Your task to perform on an android device: find photos in the google photos app Image 0: 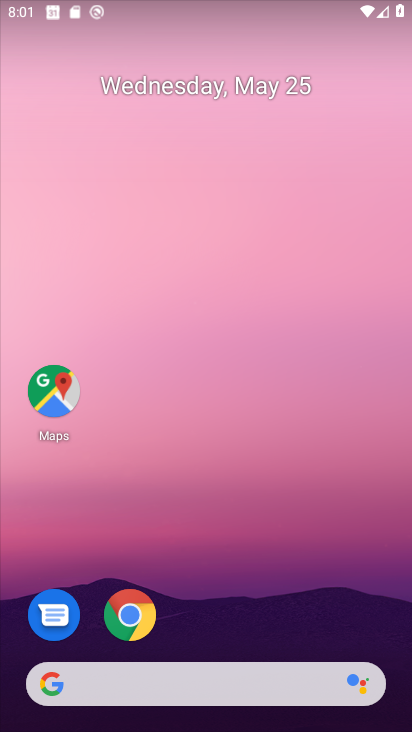
Step 0: drag from (286, 566) to (188, 38)
Your task to perform on an android device: find photos in the google photos app Image 1: 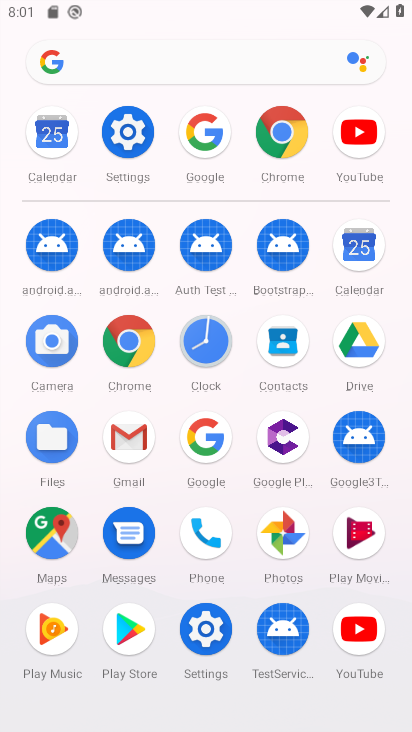
Step 1: click (283, 530)
Your task to perform on an android device: find photos in the google photos app Image 2: 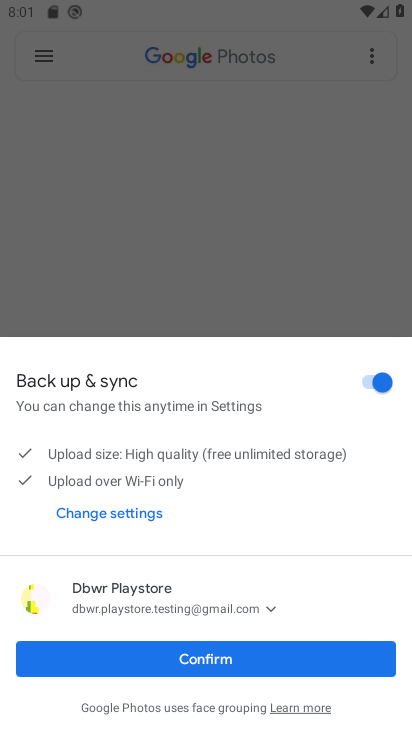
Step 2: click (165, 666)
Your task to perform on an android device: find photos in the google photos app Image 3: 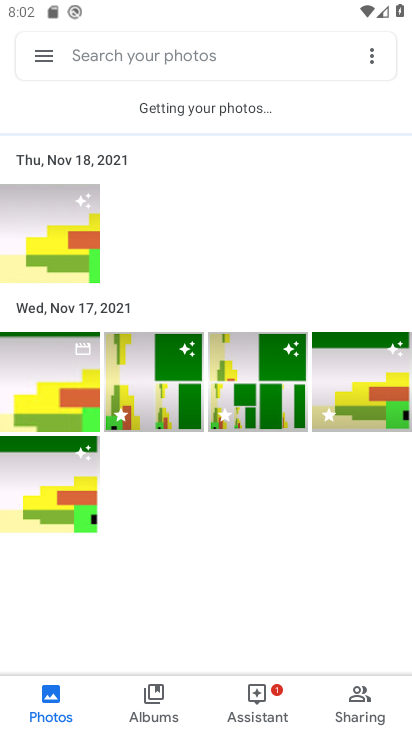
Step 3: task complete